Your task to perform on an android device: check battery use Image 0: 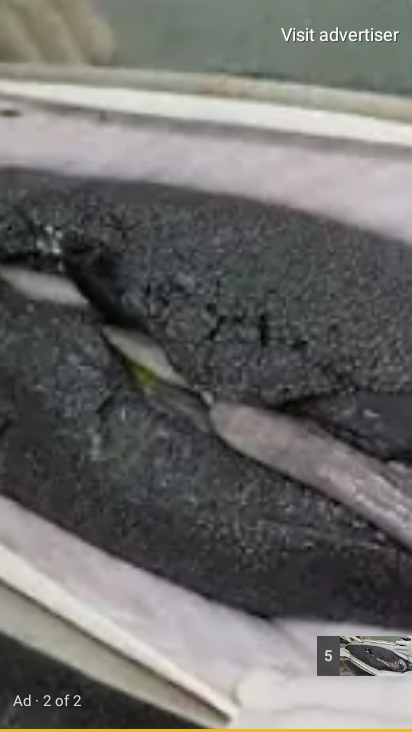
Step 0: press home button
Your task to perform on an android device: check battery use Image 1: 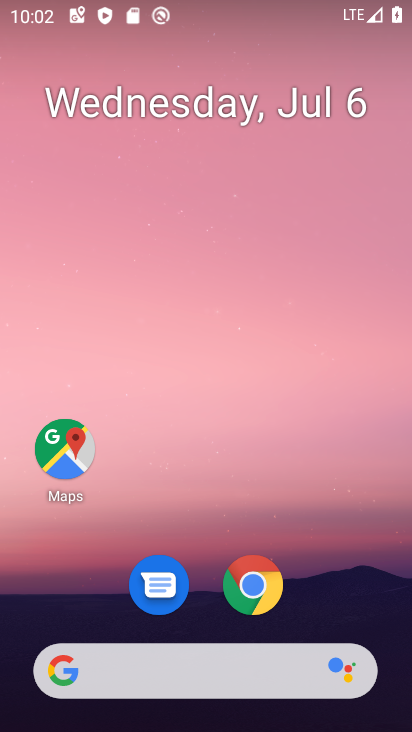
Step 1: drag from (209, 484) to (251, 34)
Your task to perform on an android device: check battery use Image 2: 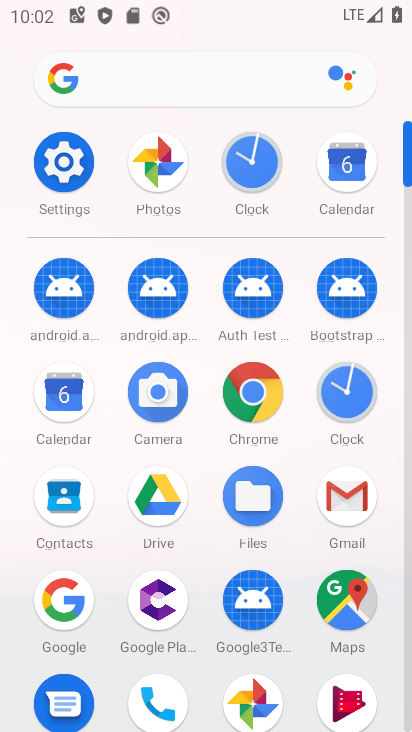
Step 2: click (66, 164)
Your task to perform on an android device: check battery use Image 3: 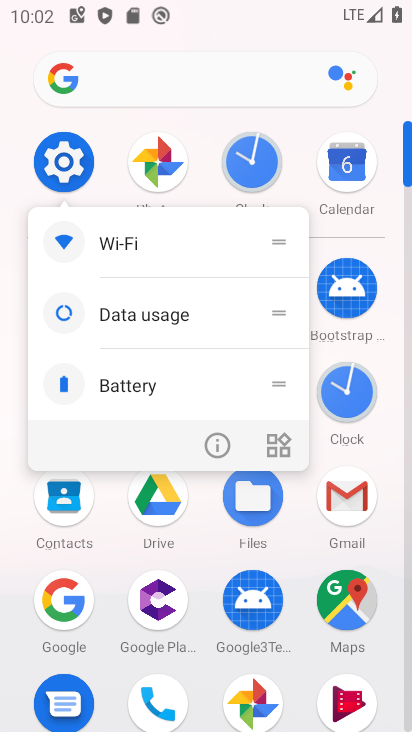
Step 3: click (66, 162)
Your task to perform on an android device: check battery use Image 4: 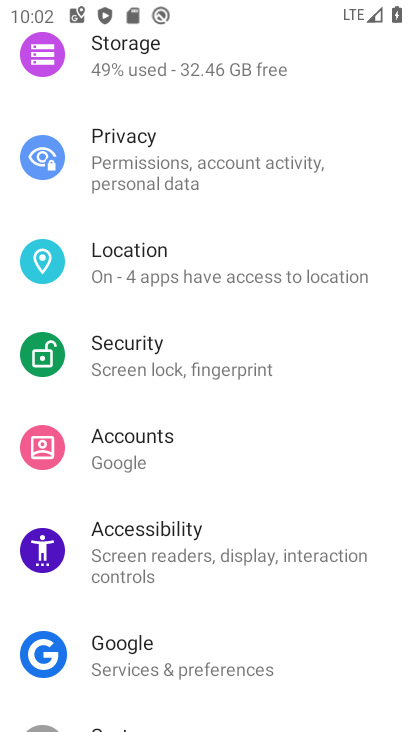
Step 4: drag from (224, 216) to (202, 637)
Your task to perform on an android device: check battery use Image 5: 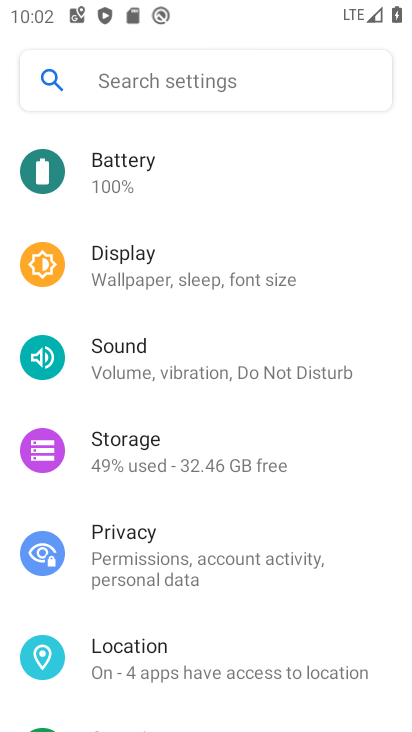
Step 5: click (185, 168)
Your task to perform on an android device: check battery use Image 6: 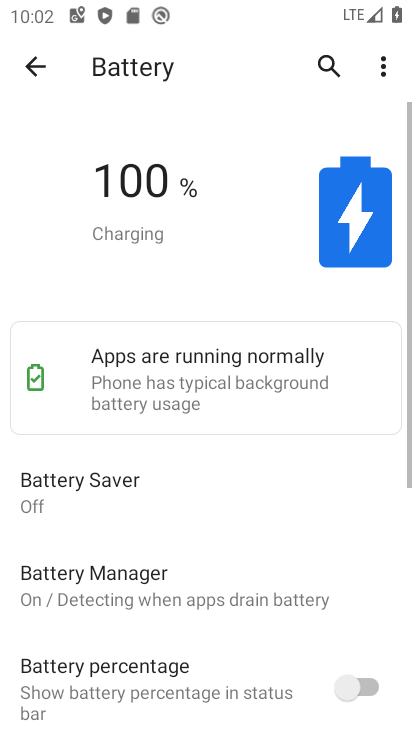
Step 6: click (382, 58)
Your task to perform on an android device: check battery use Image 7: 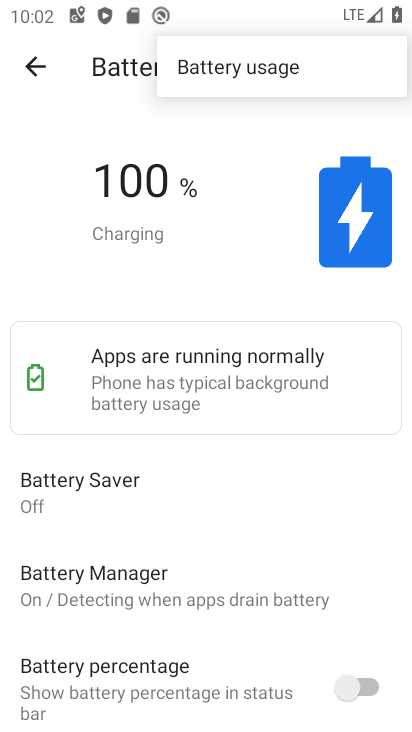
Step 7: click (287, 66)
Your task to perform on an android device: check battery use Image 8: 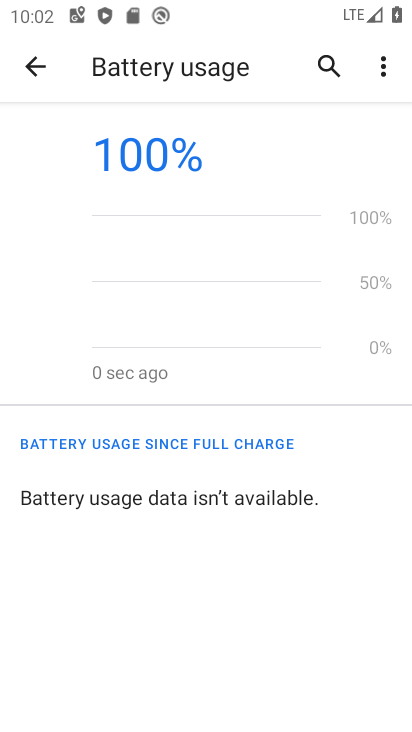
Step 8: task complete